Your task to perform on an android device: Go to settings Image 0: 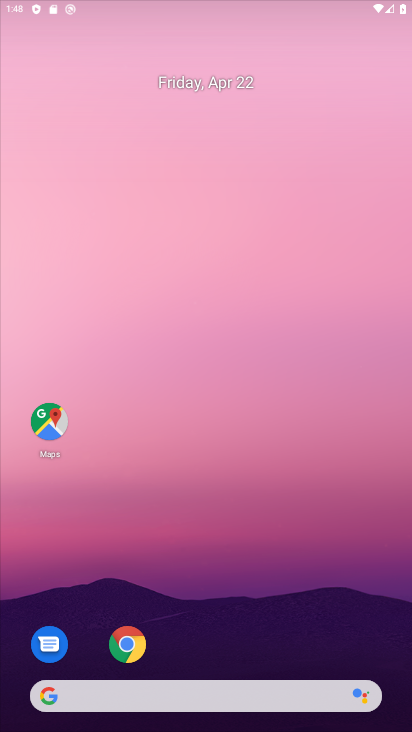
Step 0: drag from (219, 545) to (270, 85)
Your task to perform on an android device: Go to settings Image 1: 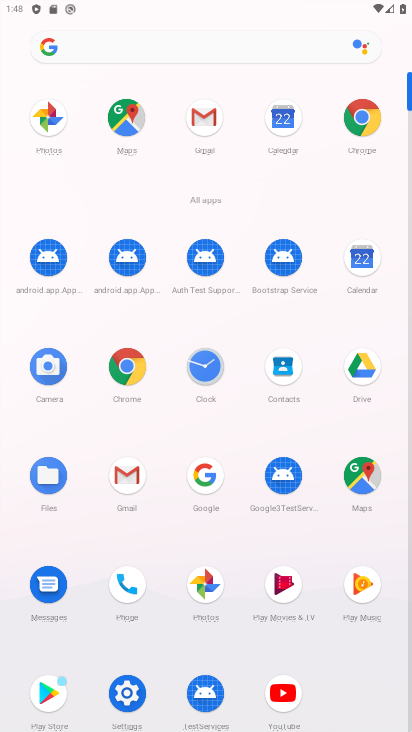
Step 1: click (124, 681)
Your task to perform on an android device: Go to settings Image 2: 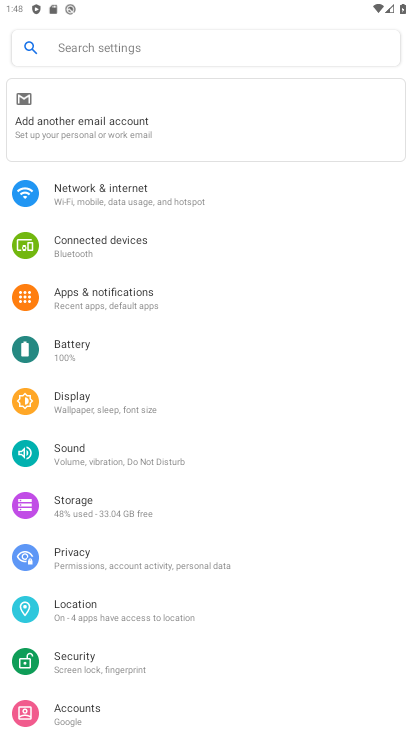
Step 2: task complete